Your task to perform on an android device: add a contact in the contacts app Image 0: 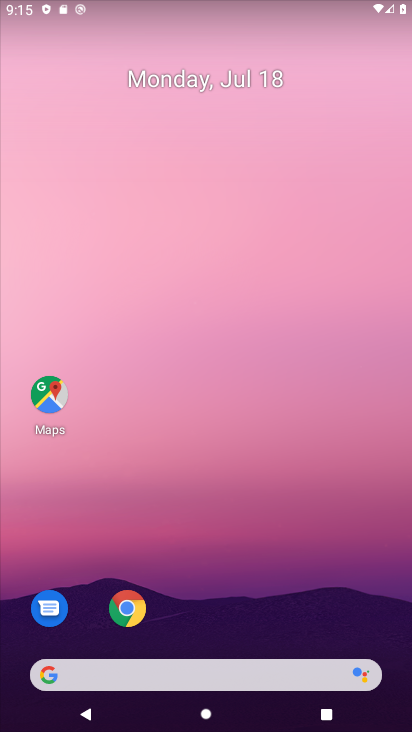
Step 0: drag from (220, 622) to (219, 226)
Your task to perform on an android device: add a contact in the contacts app Image 1: 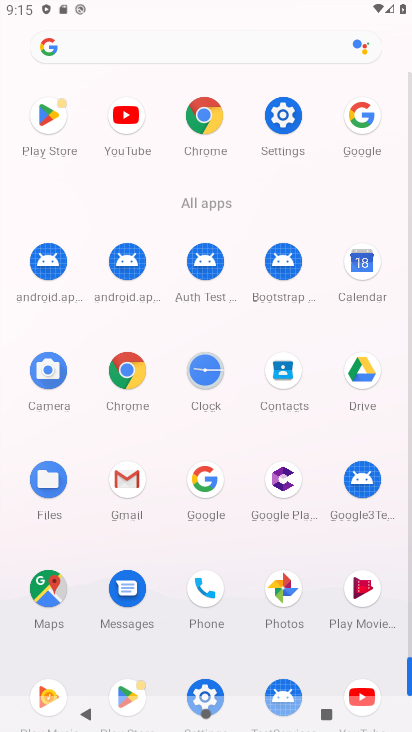
Step 1: click (212, 107)
Your task to perform on an android device: add a contact in the contacts app Image 2: 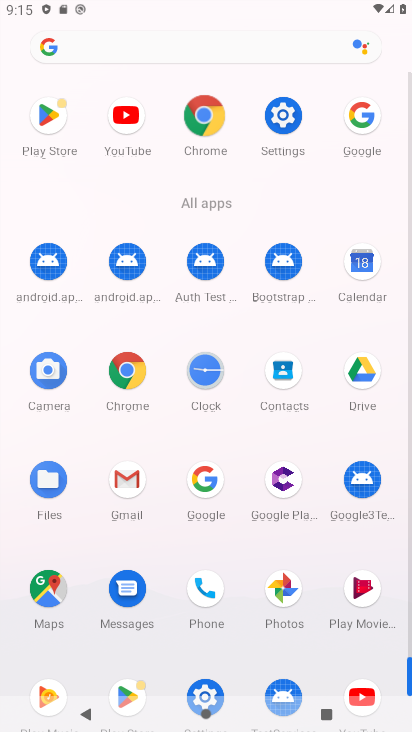
Step 2: click (212, 107)
Your task to perform on an android device: add a contact in the contacts app Image 3: 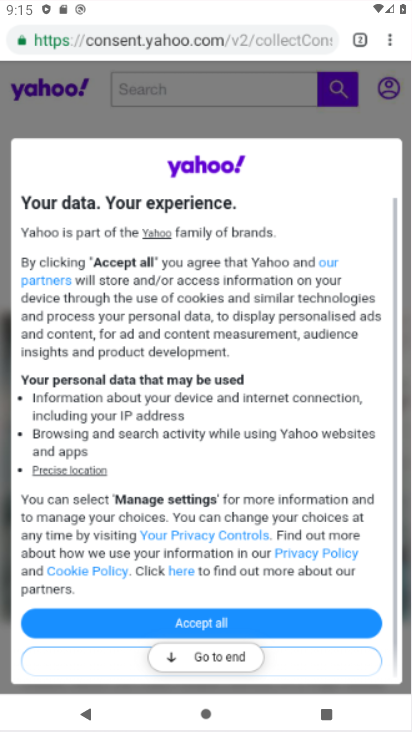
Step 3: click (212, 108)
Your task to perform on an android device: add a contact in the contacts app Image 4: 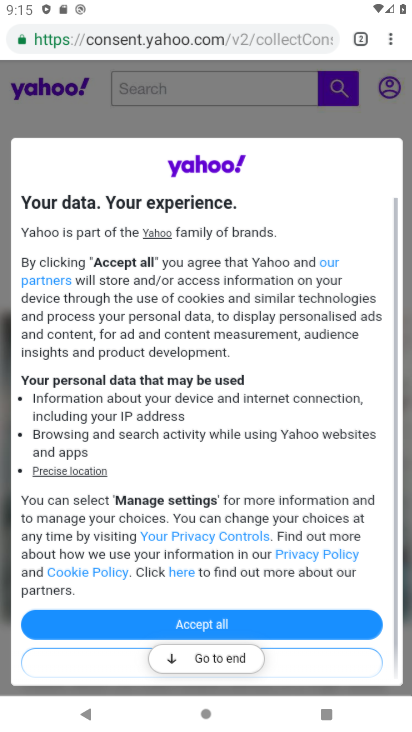
Step 4: drag from (388, 25) to (262, 481)
Your task to perform on an android device: add a contact in the contacts app Image 5: 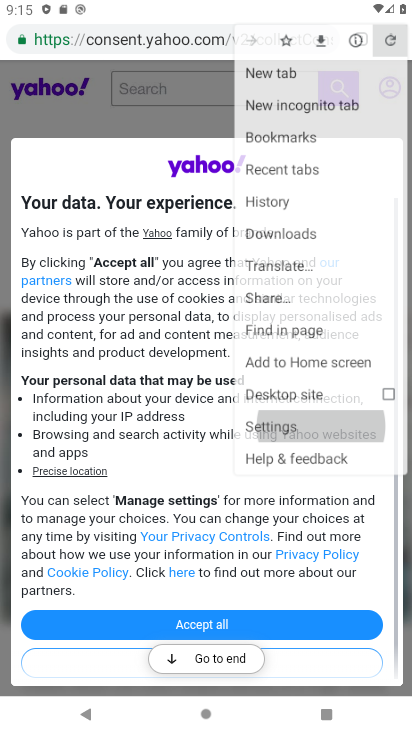
Step 5: click (113, 174)
Your task to perform on an android device: add a contact in the contacts app Image 6: 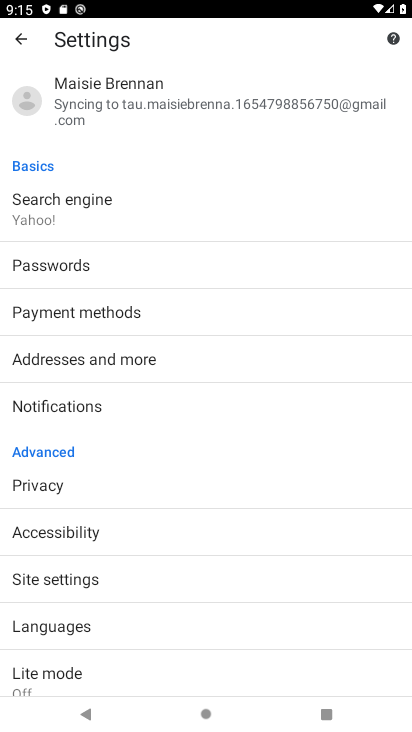
Step 6: press back button
Your task to perform on an android device: add a contact in the contacts app Image 7: 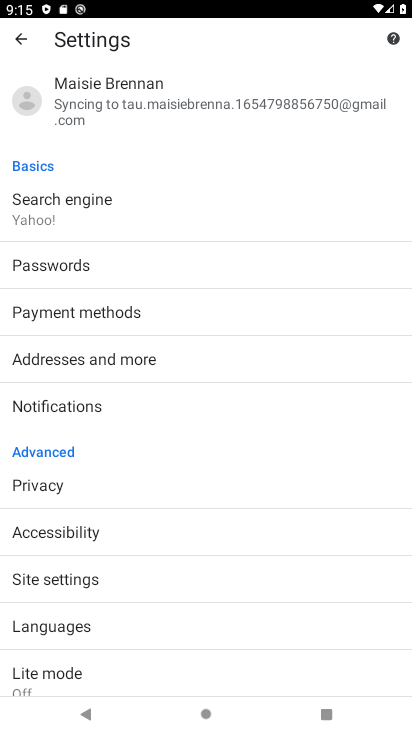
Step 7: press back button
Your task to perform on an android device: add a contact in the contacts app Image 8: 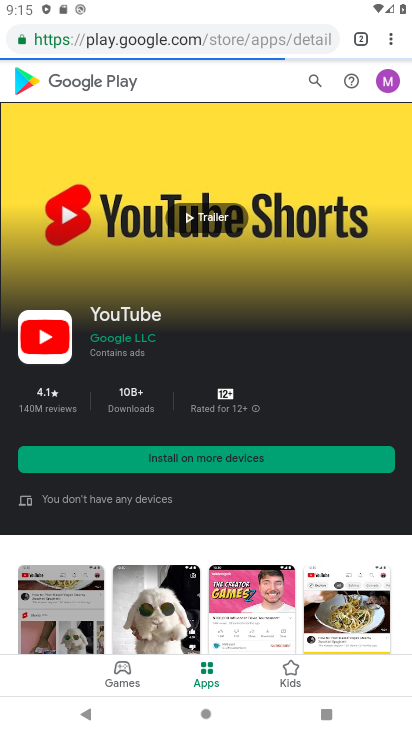
Step 8: press home button
Your task to perform on an android device: add a contact in the contacts app Image 9: 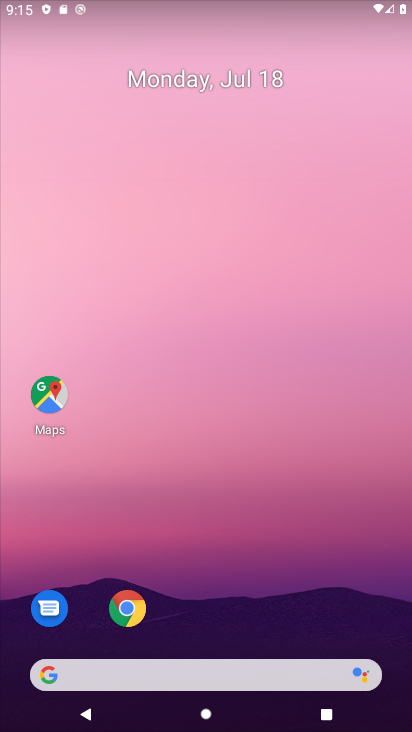
Step 9: drag from (247, 684) to (190, 204)
Your task to perform on an android device: add a contact in the contacts app Image 10: 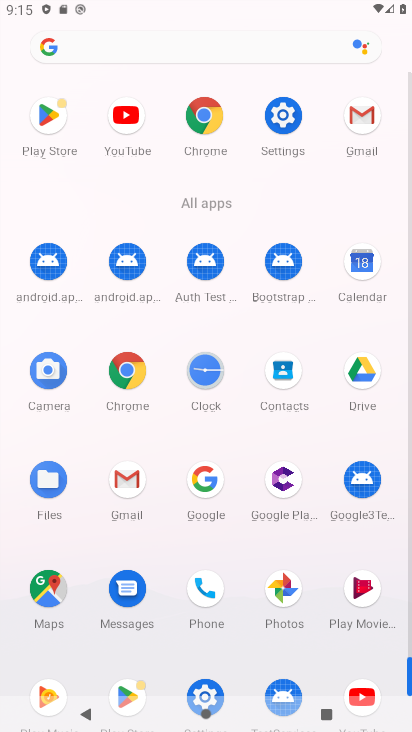
Step 10: click (208, 678)
Your task to perform on an android device: add a contact in the contacts app Image 11: 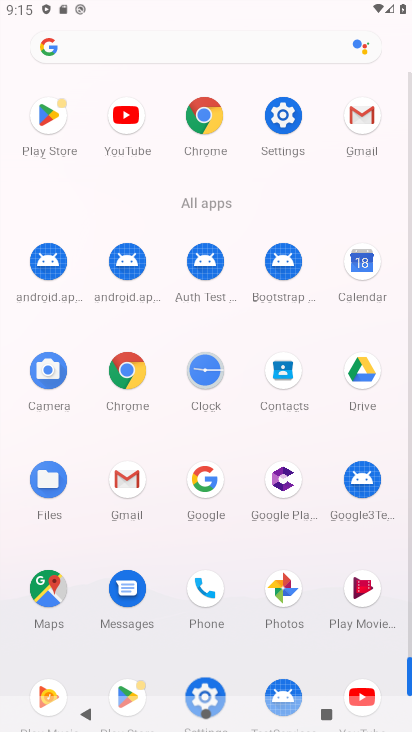
Step 11: click (201, 686)
Your task to perform on an android device: add a contact in the contacts app Image 12: 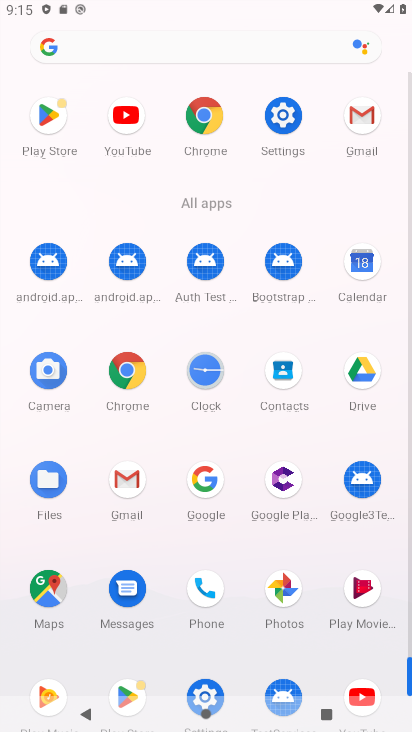
Step 12: click (201, 686)
Your task to perform on an android device: add a contact in the contacts app Image 13: 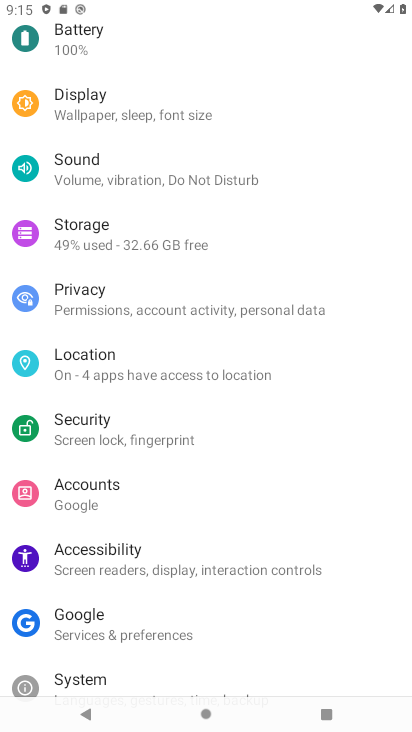
Step 13: drag from (158, 539) to (109, 176)
Your task to perform on an android device: add a contact in the contacts app Image 14: 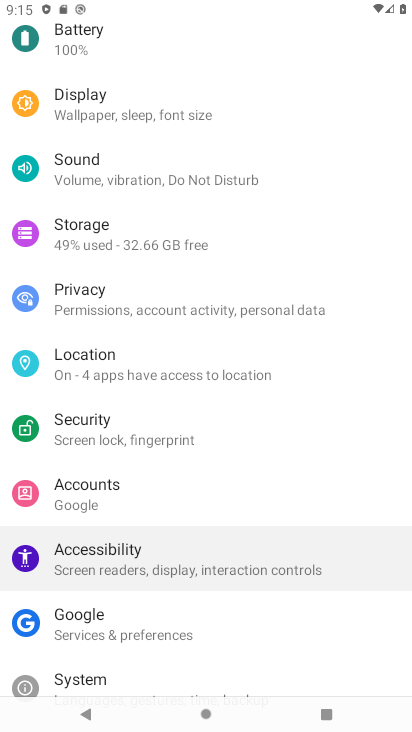
Step 14: drag from (181, 431) to (149, 182)
Your task to perform on an android device: add a contact in the contacts app Image 15: 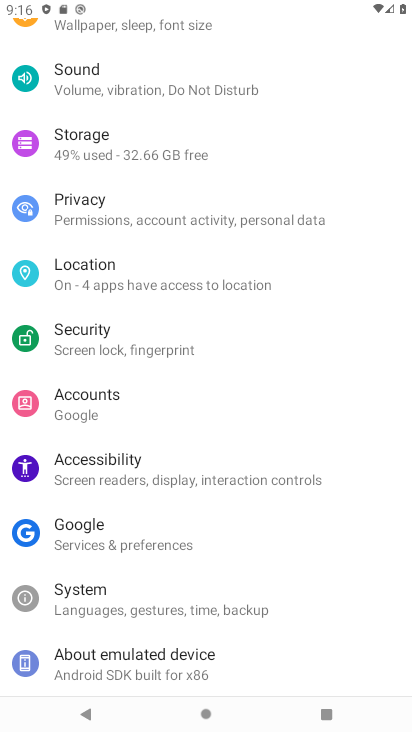
Step 15: press back button
Your task to perform on an android device: add a contact in the contacts app Image 16: 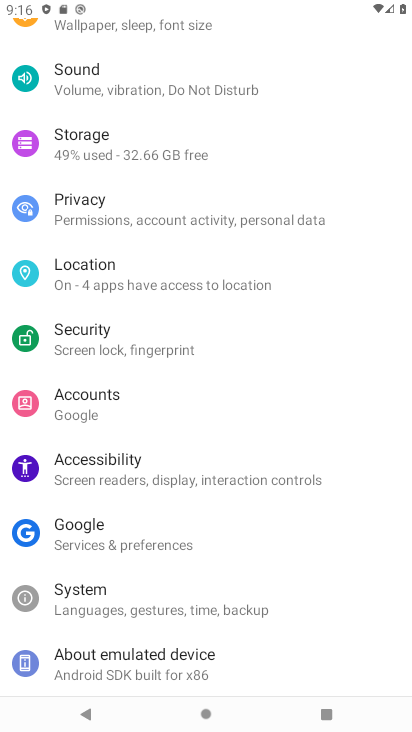
Step 16: press back button
Your task to perform on an android device: add a contact in the contacts app Image 17: 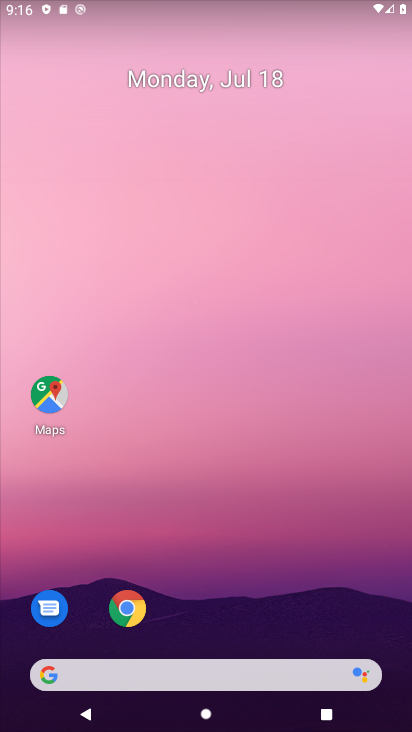
Step 17: drag from (272, 676) to (227, 76)
Your task to perform on an android device: add a contact in the contacts app Image 18: 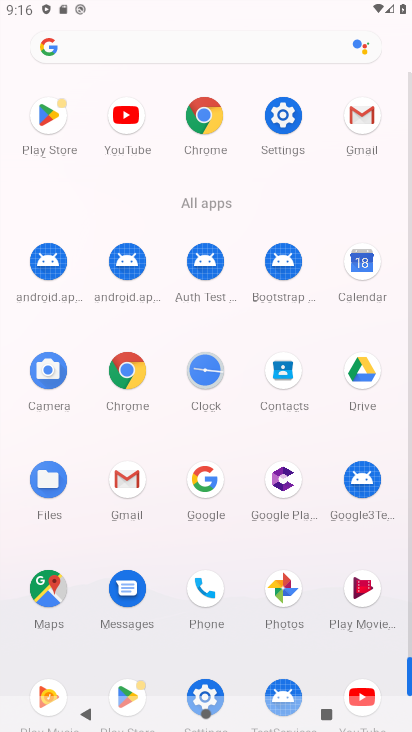
Step 18: click (281, 367)
Your task to perform on an android device: add a contact in the contacts app Image 19: 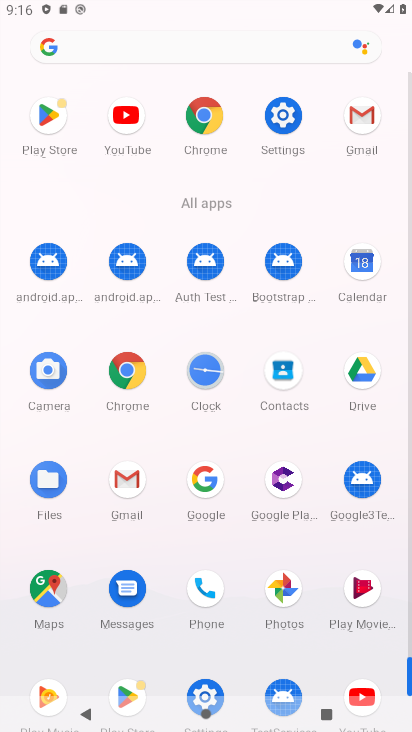
Step 19: click (282, 365)
Your task to perform on an android device: add a contact in the contacts app Image 20: 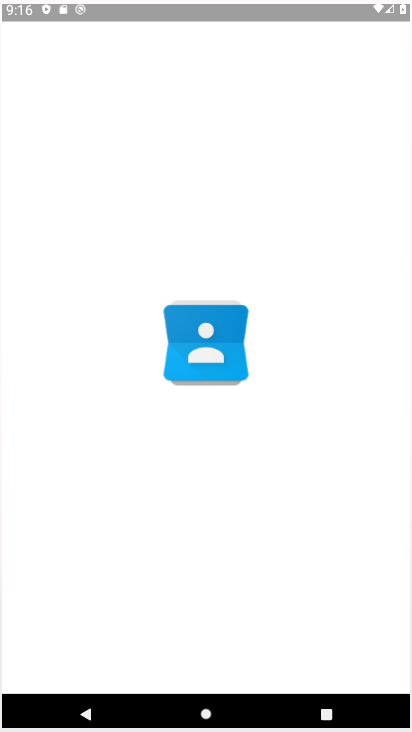
Step 20: click (282, 365)
Your task to perform on an android device: add a contact in the contacts app Image 21: 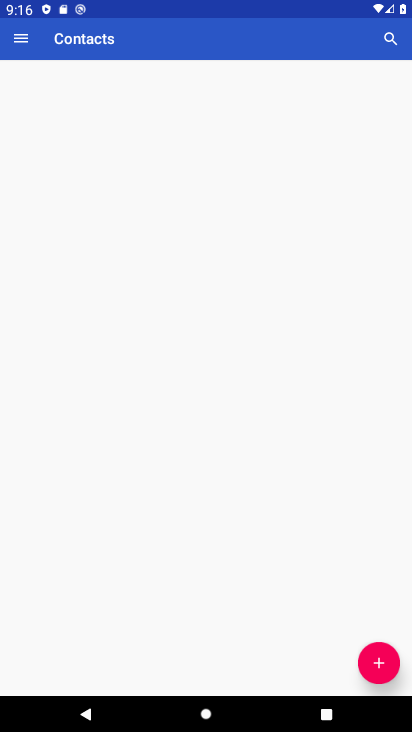
Step 21: click (282, 365)
Your task to perform on an android device: add a contact in the contacts app Image 22: 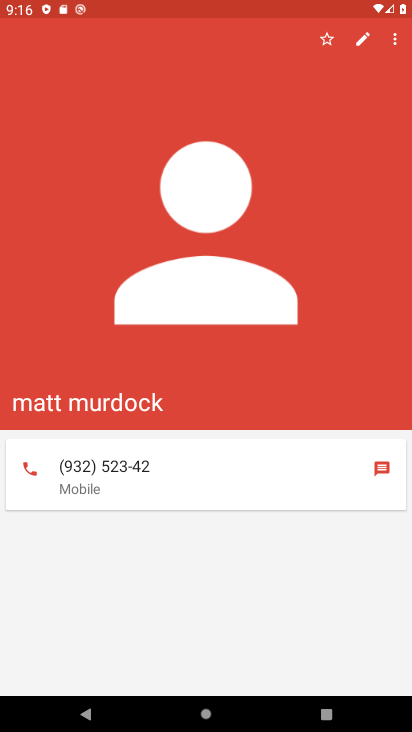
Step 22: task complete